Your task to perform on an android device: When is my next appointment? Image 0: 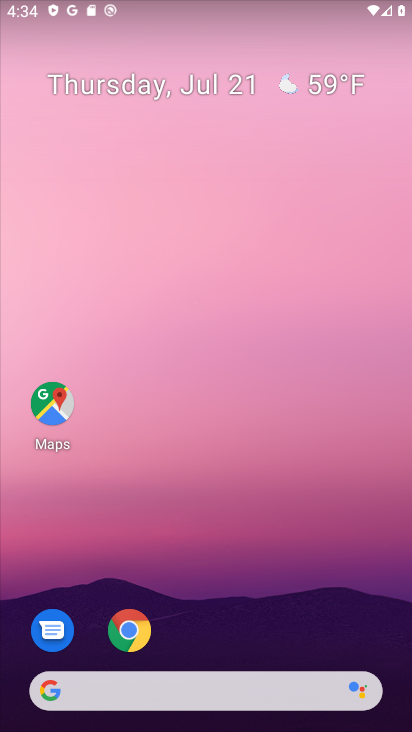
Step 0: drag from (262, 663) to (212, 192)
Your task to perform on an android device: When is my next appointment? Image 1: 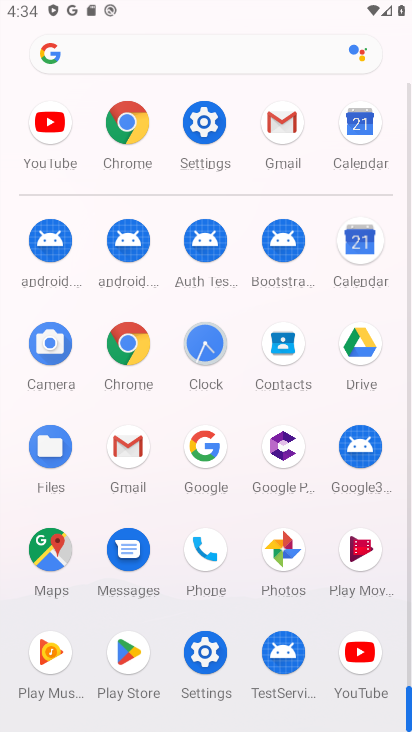
Step 1: click (368, 239)
Your task to perform on an android device: When is my next appointment? Image 2: 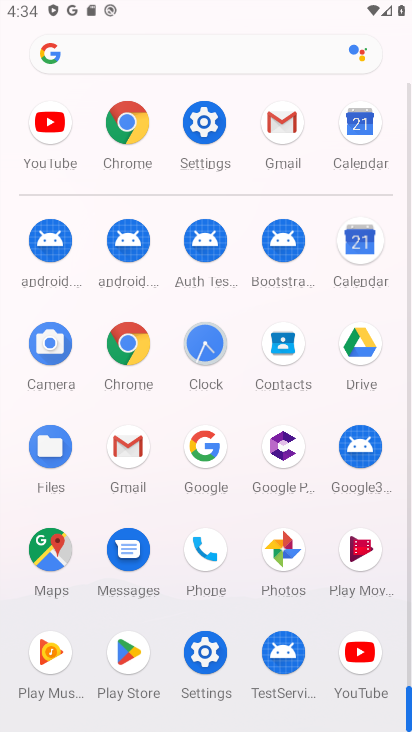
Step 2: click (363, 242)
Your task to perform on an android device: When is my next appointment? Image 3: 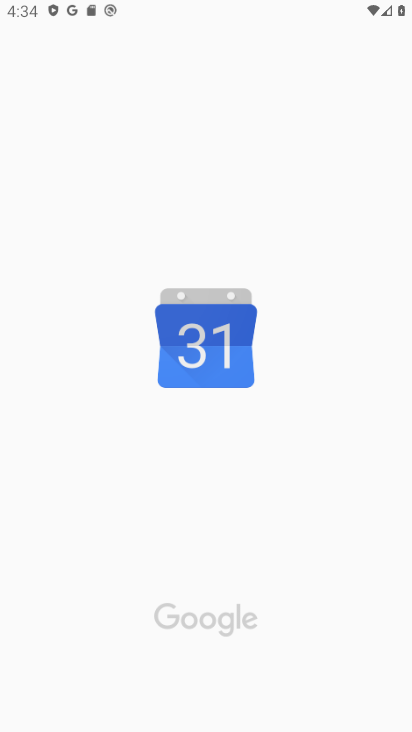
Step 3: click (365, 239)
Your task to perform on an android device: When is my next appointment? Image 4: 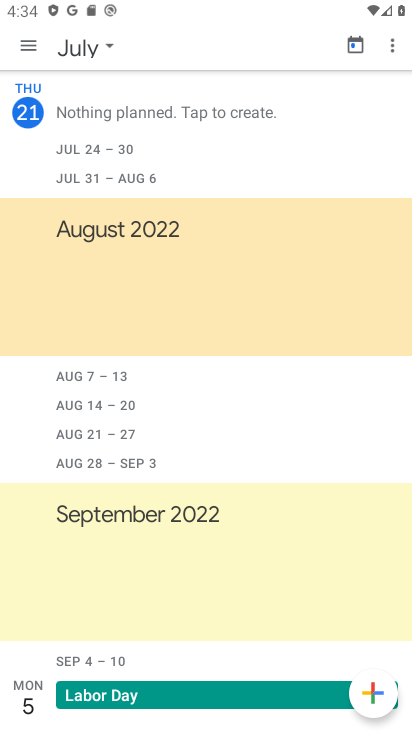
Step 4: click (111, 46)
Your task to perform on an android device: When is my next appointment? Image 5: 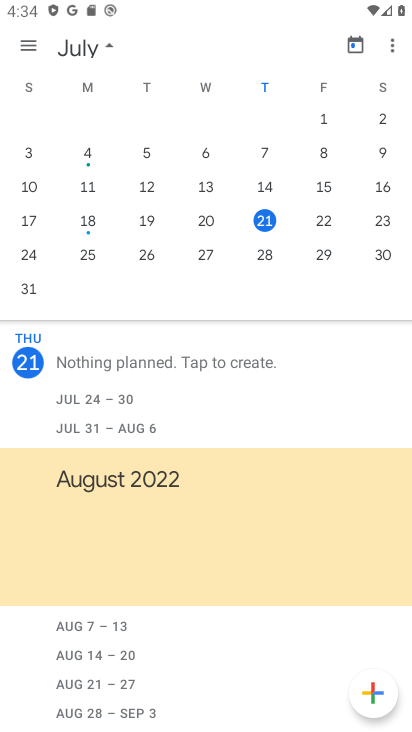
Step 5: task complete